Your task to perform on an android device: Open the map Image 0: 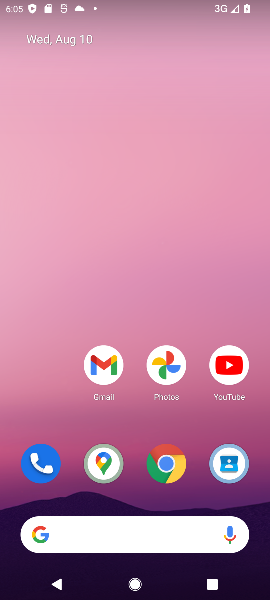
Step 0: click (108, 460)
Your task to perform on an android device: Open the map Image 1: 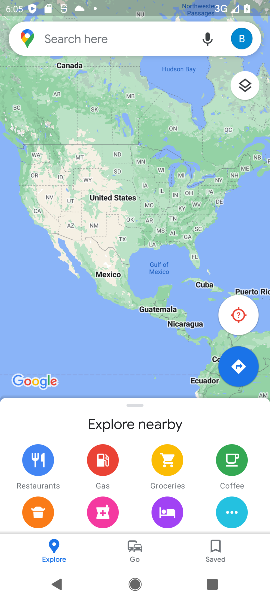
Step 1: task complete